Your task to perform on an android device: Do I have any events this weekend? Image 0: 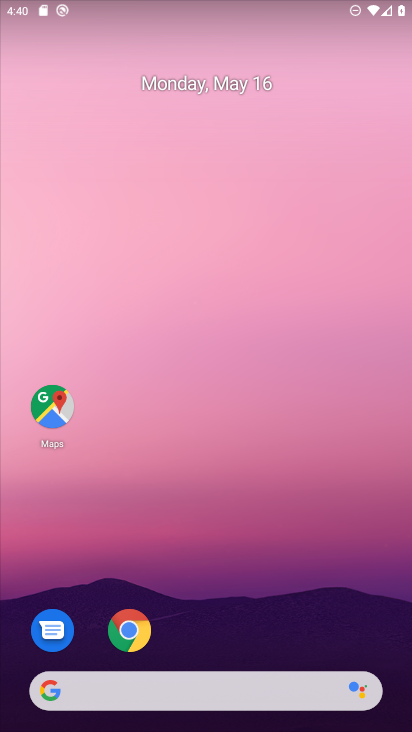
Step 0: press home button
Your task to perform on an android device: Do I have any events this weekend? Image 1: 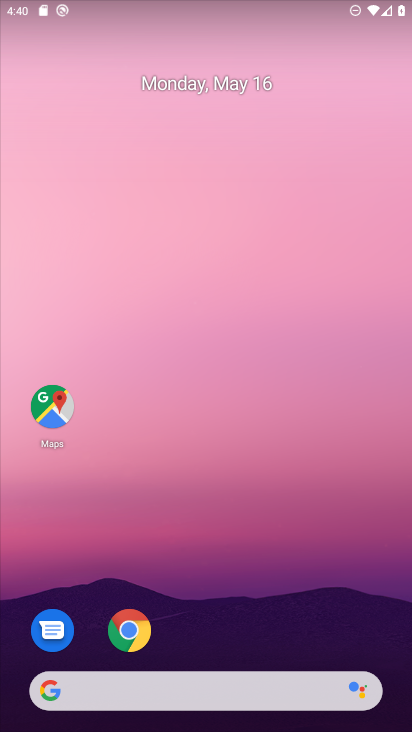
Step 1: drag from (323, 378) to (321, 137)
Your task to perform on an android device: Do I have any events this weekend? Image 2: 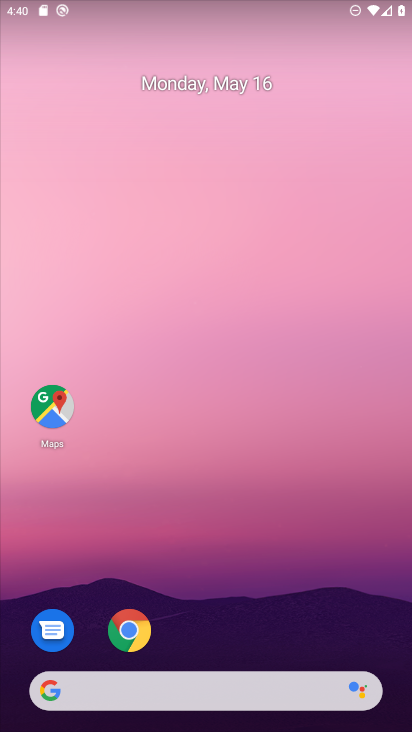
Step 2: drag from (288, 305) to (340, 0)
Your task to perform on an android device: Do I have any events this weekend? Image 3: 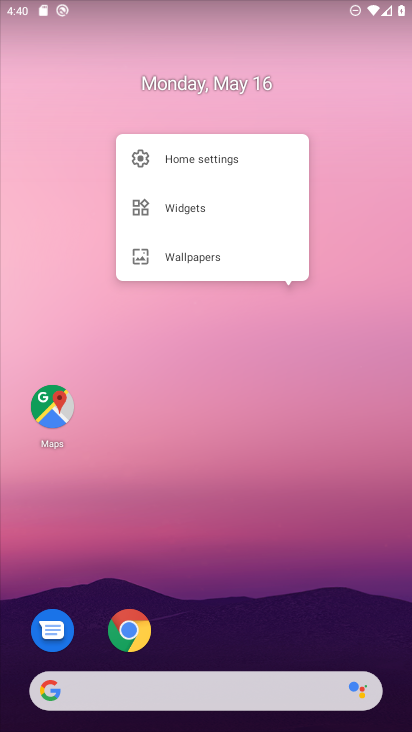
Step 3: click (330, 643)
Your task to perform on an android device: Do I have any events this weekend? Image 4: 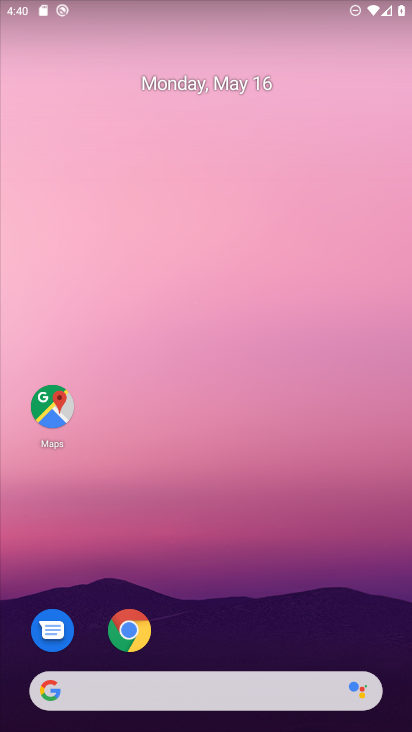
Step 4: drag from (330, 595) to (364, 154)
Your task to perform on an android device: Do I have any events this weekend? Image 5: 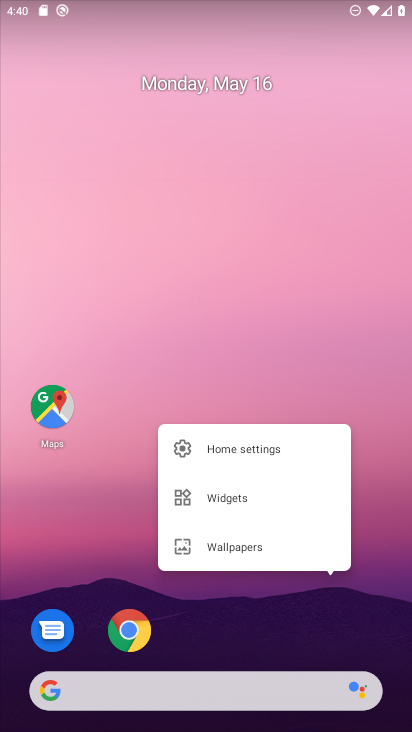
Step 5: click (366, 618)
Your task to perform on an android device: Do I have any events this weekend? Image 6: 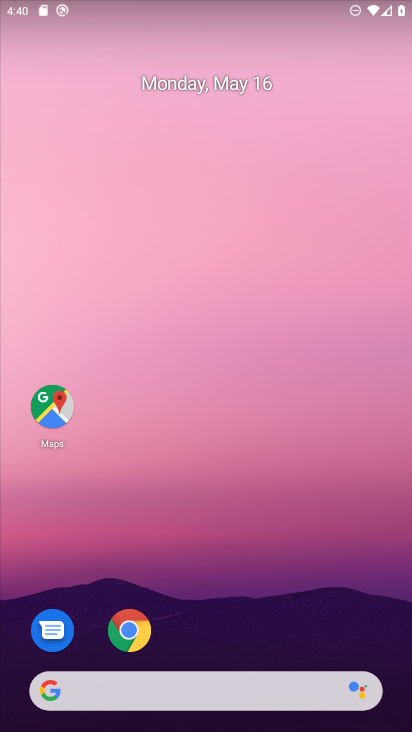
Step 6: drag from (355, 631) to (377, 6)
Your task to perform on an android device: Do I have any events this weekend? Image 7: 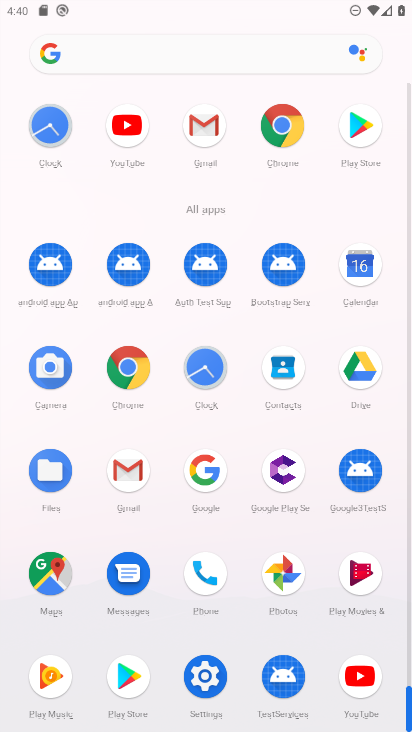
Step 7: click (330, 711)
Your task to perform on an android device: Do I have any events this weekend? Image 8: 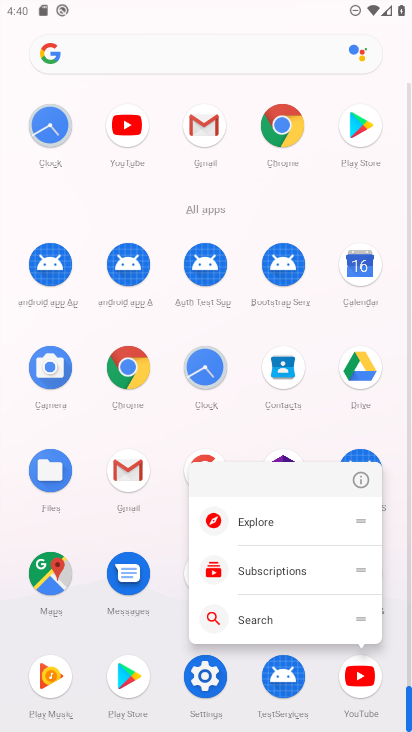
Step 8: drag from (328, 727) to (341, 594)
Your task to perform on an android device: Do I have any events this weekend? Image 9: 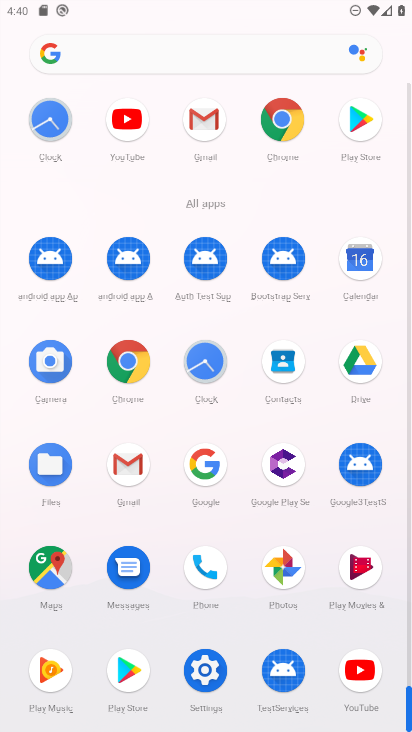
Step 9: drag from (363, 703) to (363, 341)
Your task to perform on an android device: Do I have any events this weekend? Image 10: 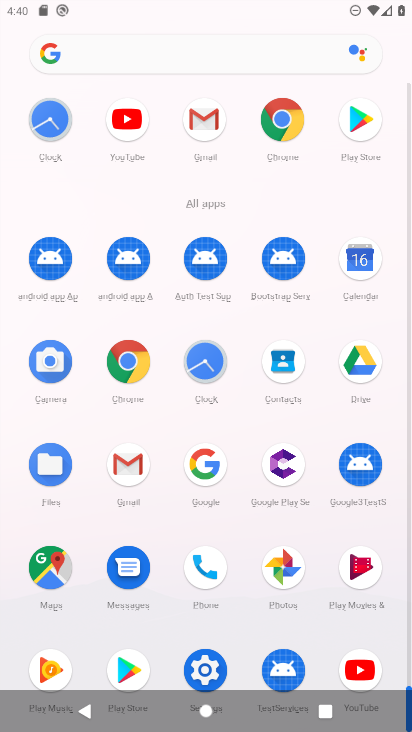
Step 10: drag from (324, 361) to (350, 297)
Your task to perform on an android device: Do I have any events this weekend? Image 11: 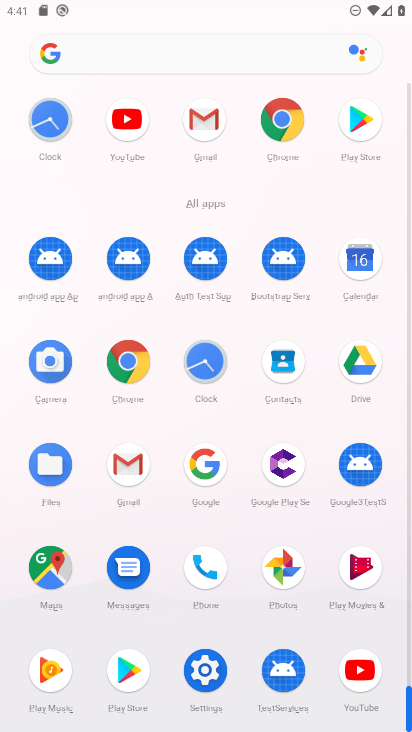
Step 11: click (347, 248)
Your task to perform on an android device: Do I have any events this weekend? Image 12: 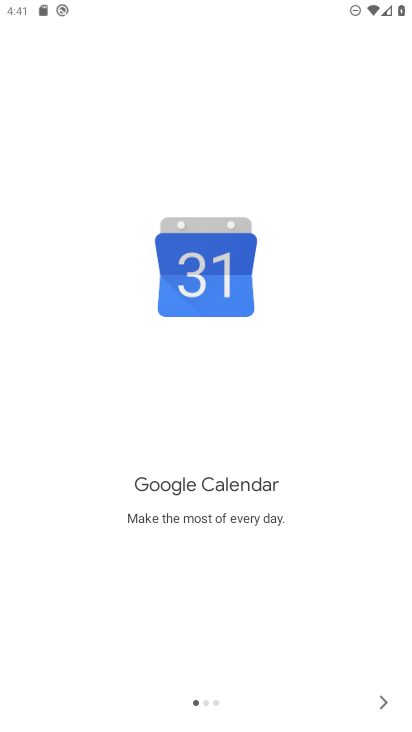
Step 12: click (373, 694)
Your task to perform on an android device: Do I have any events this weekend? Image 13: 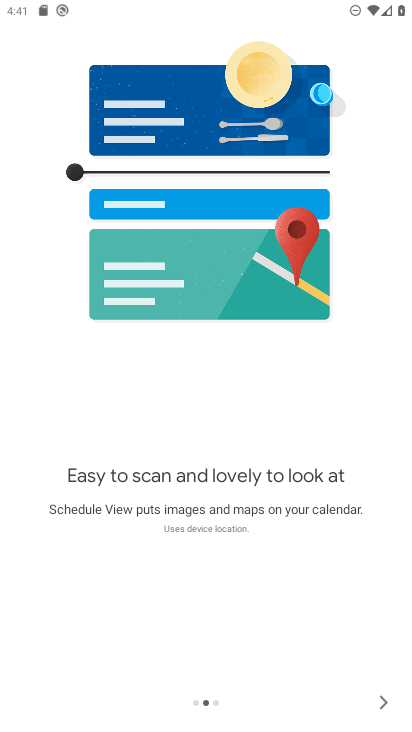
Step 13: click (373, 694)
Your task to perform on an android device: Do I have any events this weekend? Image 14: 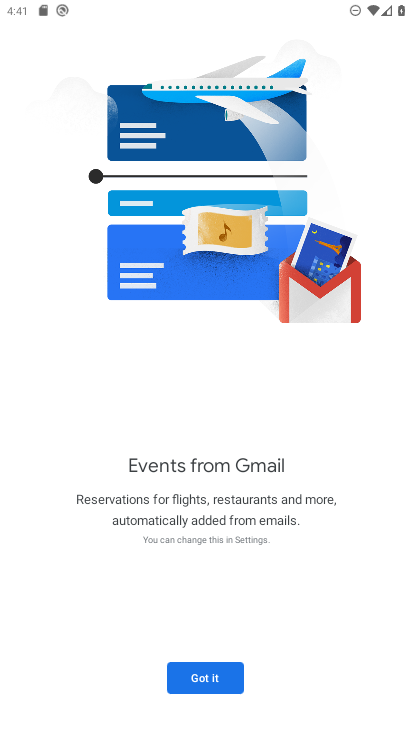
Step 14: click (226, 676)
Your task to perform on an android device: Do I have any events this weekend? Image 15: 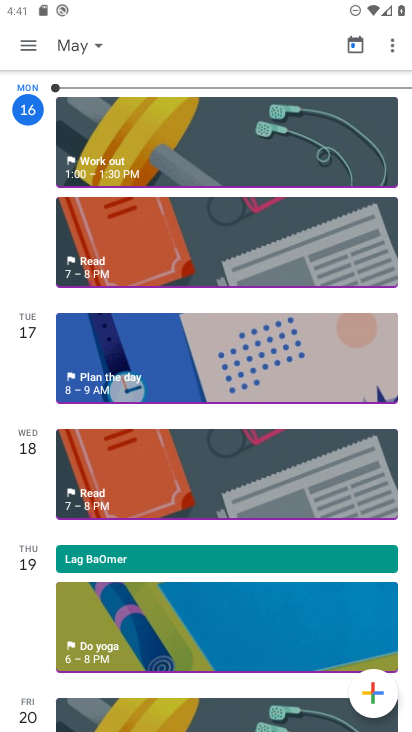
Step 15: click (109, 42)
Your task to perform on an android device: Do I have any events this weekend? Image 16: 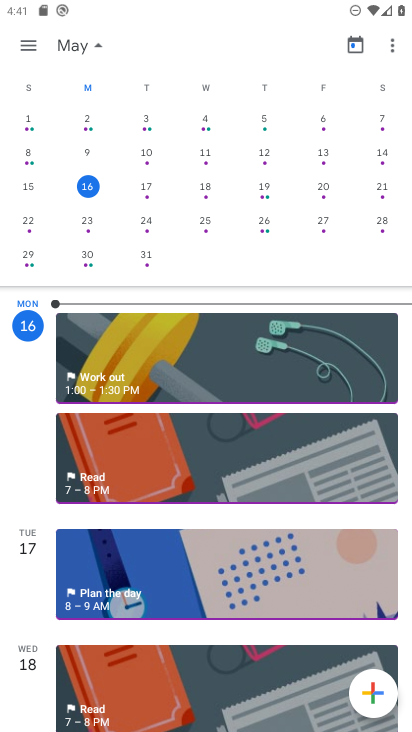
Step 16: click (319, 189)
Your task to perform on an android device: Do I have any events this weekend? Image 17: 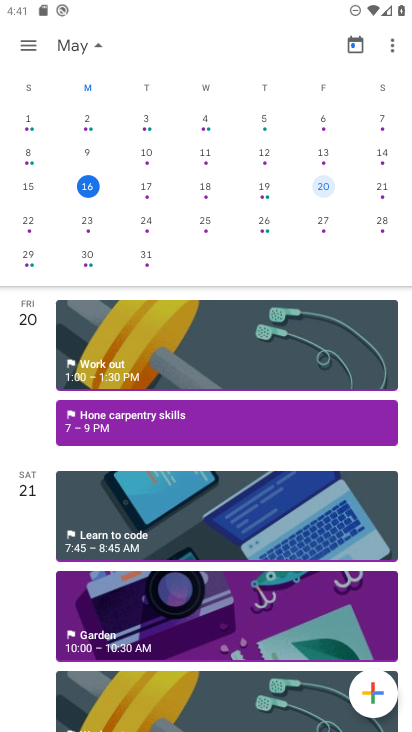
Step 17: click (93, 39)
Your task to perform on an android device: Do I have any events this weekend? Image 18: 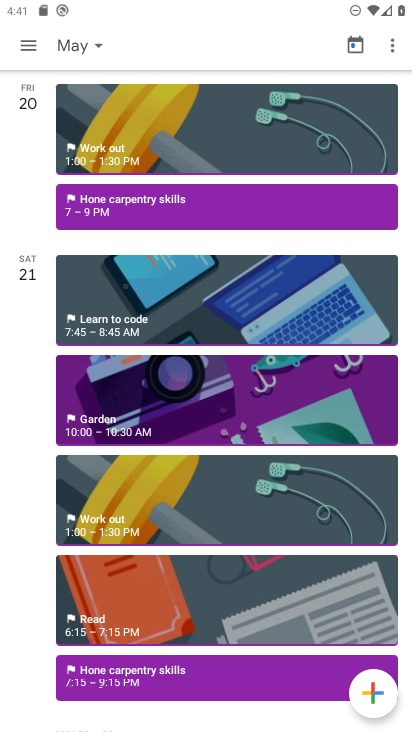
Step 18: task complete